Your task to perform on an android device: Open my contact list Image 0: 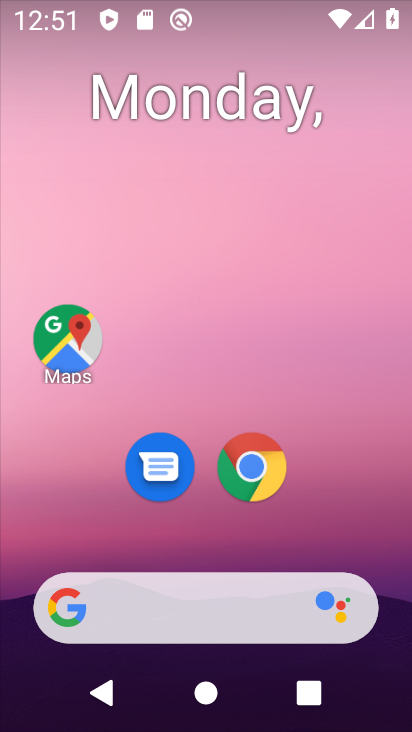
Step 0: drag from (314, 533) to (301, 2)
Your task to perform on an android device: Open my contact list Image 1: 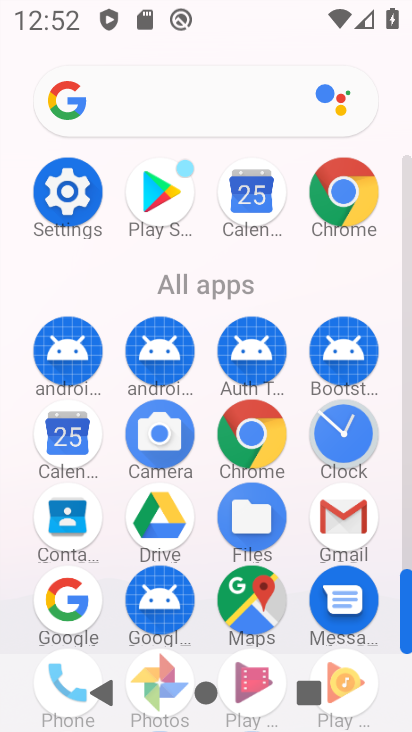
Step 1: click (62, 527)
Your task to perform on an android device: Open my contact list Image 2: 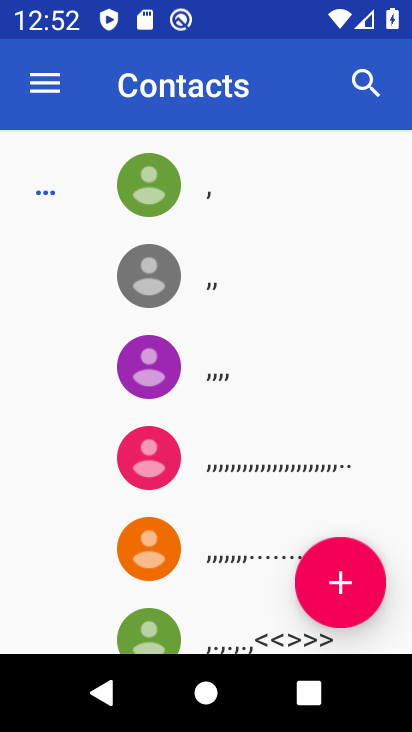
Step 2: task complete